Your task to perform on an android device: Go to Google Image 0: 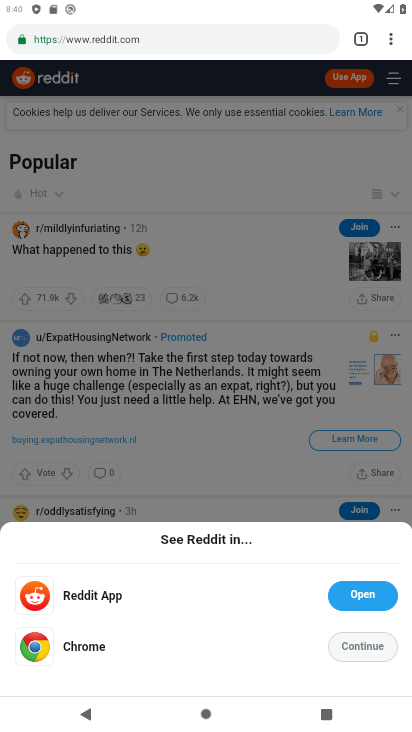
Step 0: press back button
Your task to perform on an android device: Go to Google Image 1: 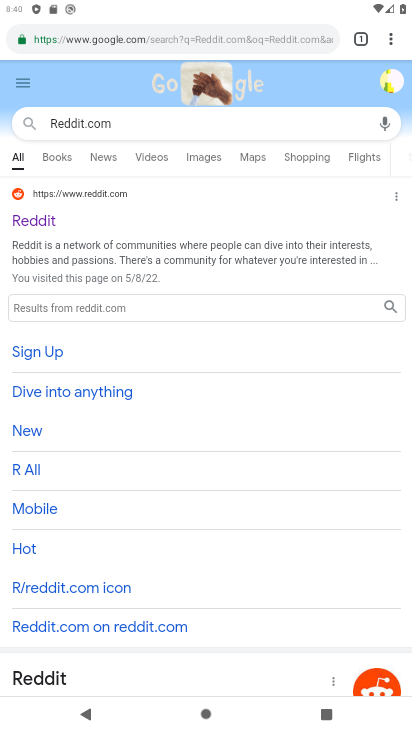
Step 1: press back button
Your task to perform on an android device: Go to Google Image 2: 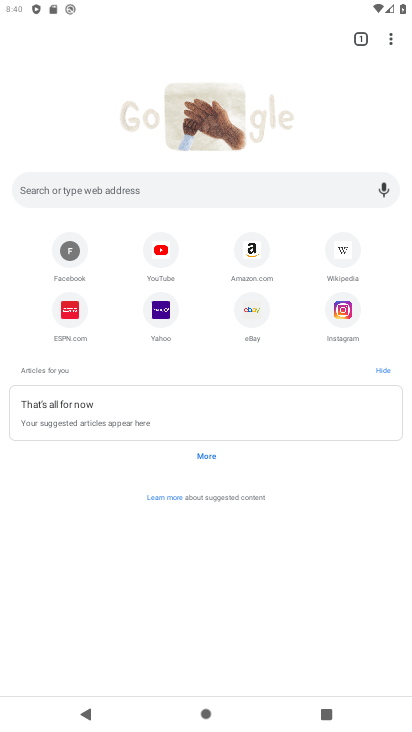
Step 2: press back button
Your task to perform on an android device: Go to Google Image 3: 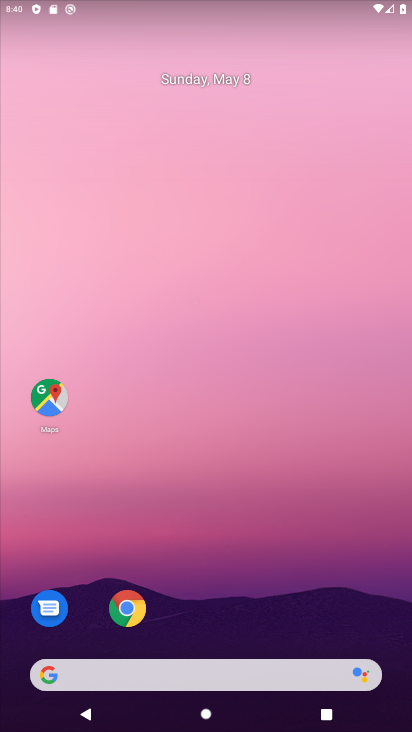
Step 3: drag from (243, 588) to (249, 81)
Your task to perform on an android device: Go to Google Image 4: 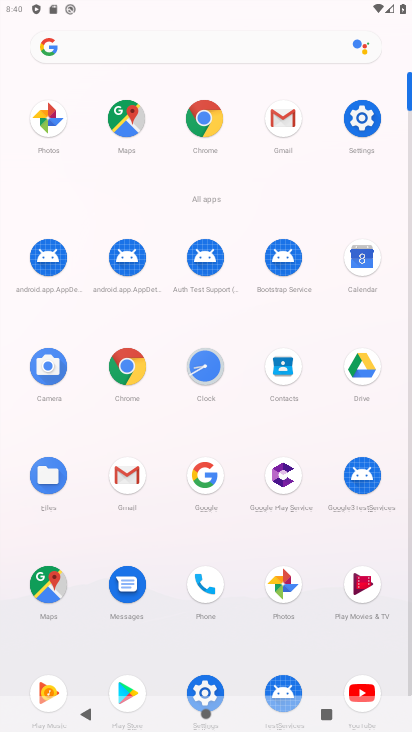
Step 4: click (201, 473)
Your task to perform on an android device: Go to Google Image 5: 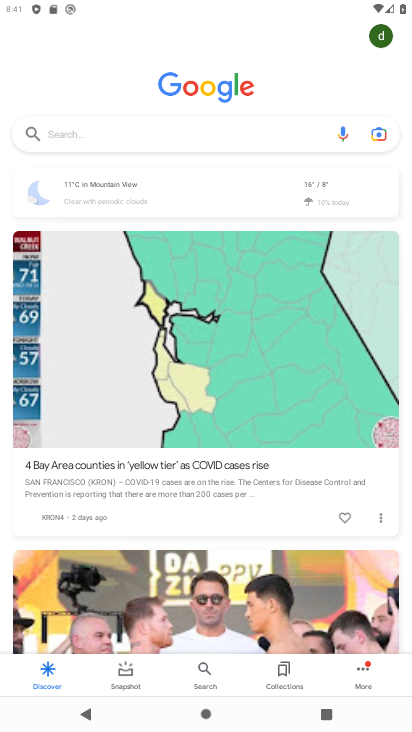
Step 5: task complete